Your task to perform on an android device: Show me productivity apps on the Play Store Image 0: 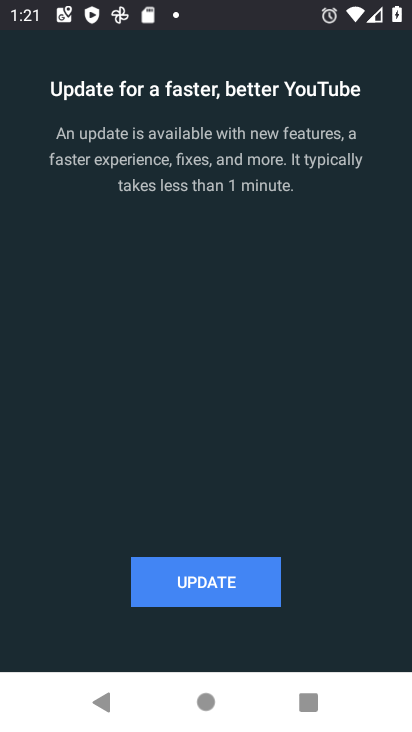
Step 0: press back button
Your task to perform on an android device: Show me productivity apps on the Play Store Image 1: 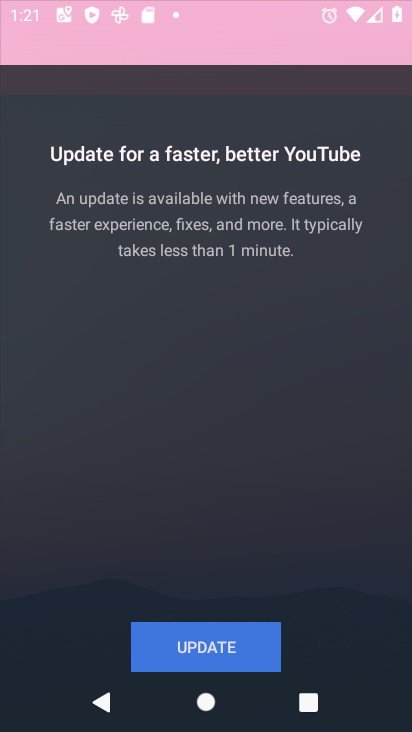
Step 1: press back button
Your task to perform on an android device: Show me productivity apps on the Play Store Image 2: 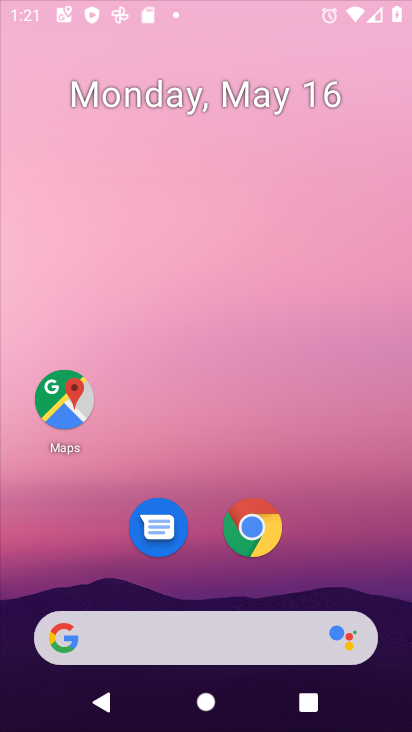
Step 2: press back button
Your task to perform on an android device: Show me productivity apps on the Play Store Image 3: 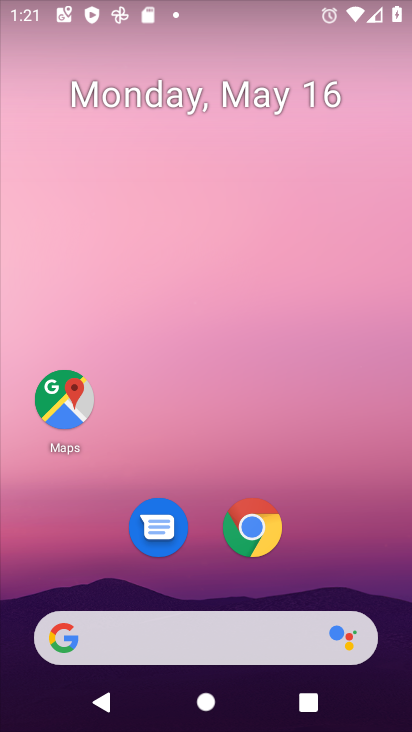
Step 3: drag from (338, 548) to (290, 23)
Your task to perform on an android device: Show me productivity apps on the Play Store Image 4: 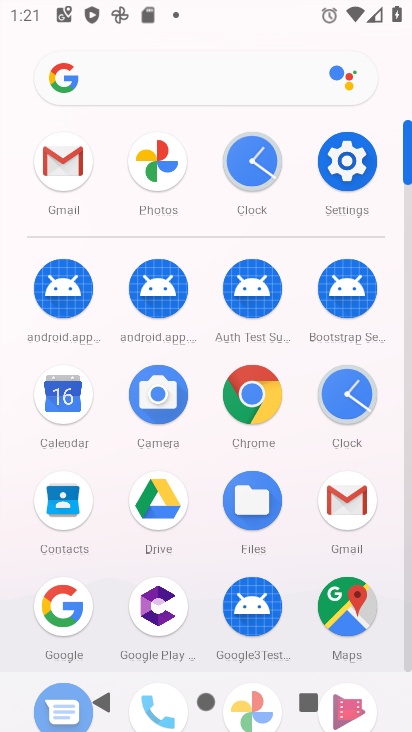
Step 4: click (405, 610)
Your task to perform on an android device: Show me productivity apps on the Play Store Image 5: 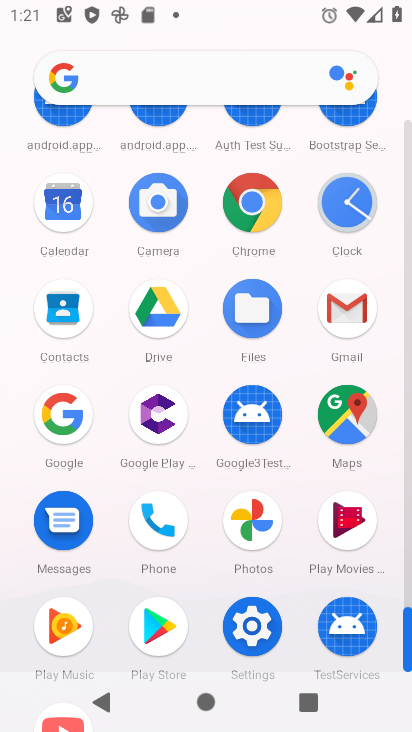
Step 5: click (253, 528)
Your task to perform on an android device: Show me productivity apps on the Play Store Image 6: 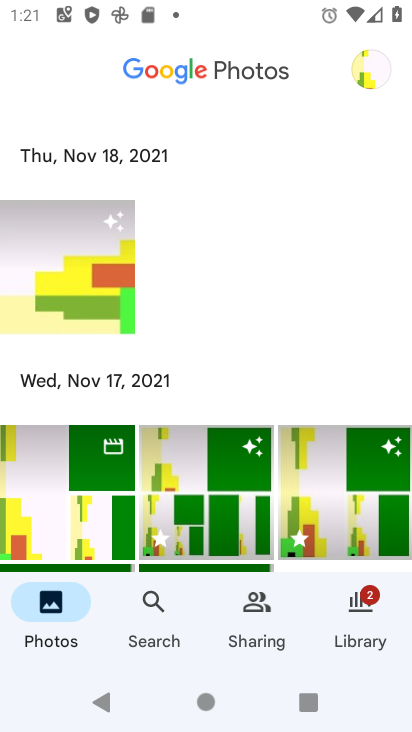
Step 6: press home button
Your task to perform on an android device: Show me productivity apps on the Play Store Image 7: 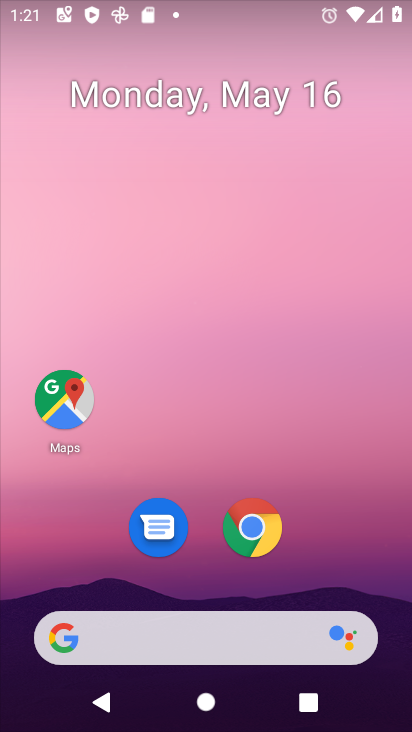
Step 7: drag from (348, 510) to (301, 69)
Your task to perform on an android device: Show me productivity apps on the Play Store Image 8: 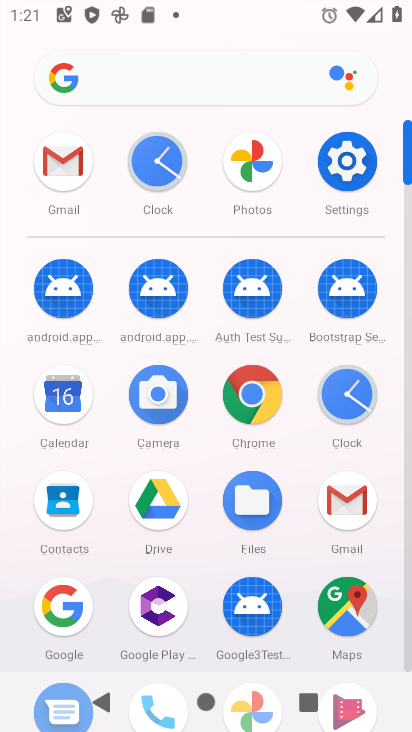
Step 8: click (404, 652)
Your task to perform on an android device: Show me productivity apps on the Play Store Image 9: 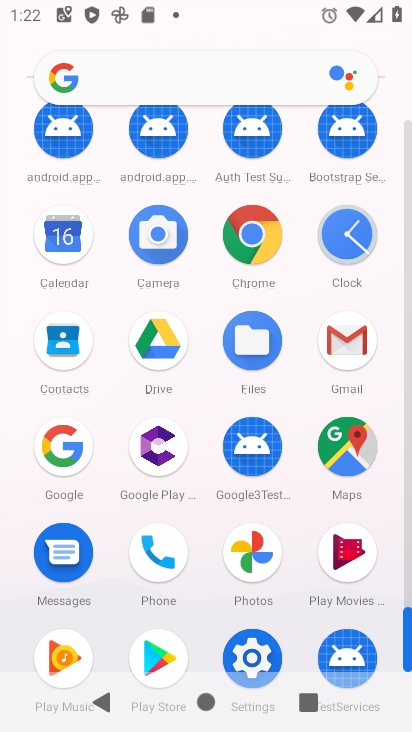
Step 9: click (163, 647)
Your task to perform on an android device: Show me productivity apps on the Play Store Image 10: 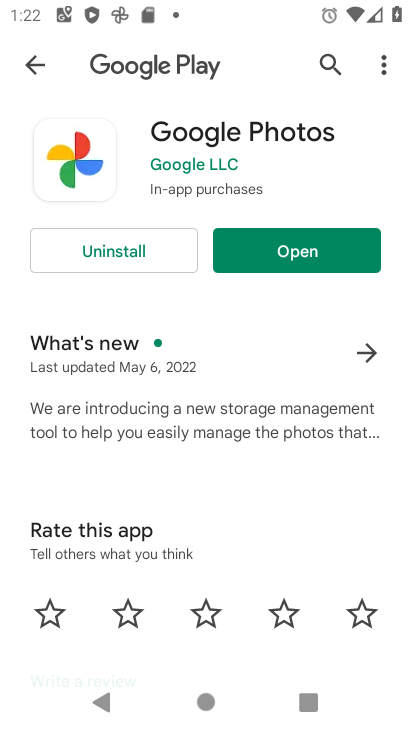
Step 10: click (36, 58)
Your task to perform on an android device: Show me productivity apps on the Play Store Image 11: 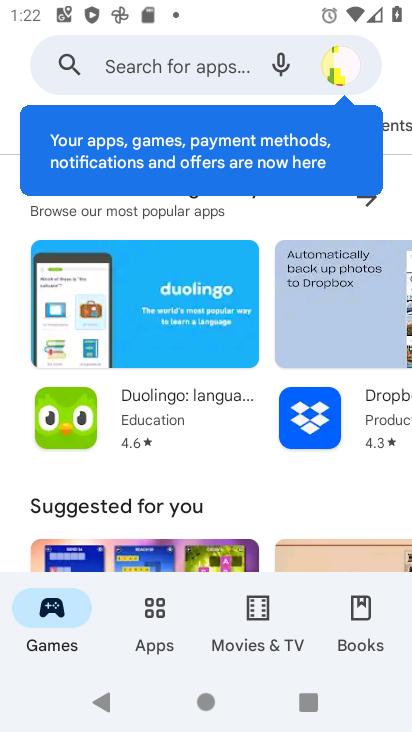
Step 11: click (294, 178)
Your task to perform on an android device: Show me productivity apps on the Play Store Image 12: 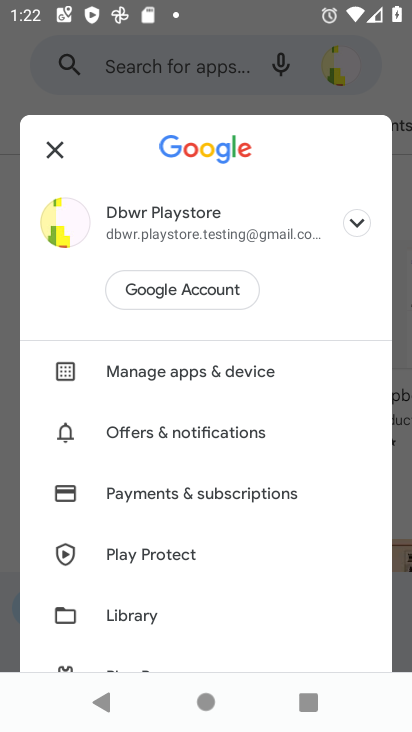
Step 12: click (38, 151)
Your task to perform on an android device: Show me productivity apps on the Play Store Image 13: 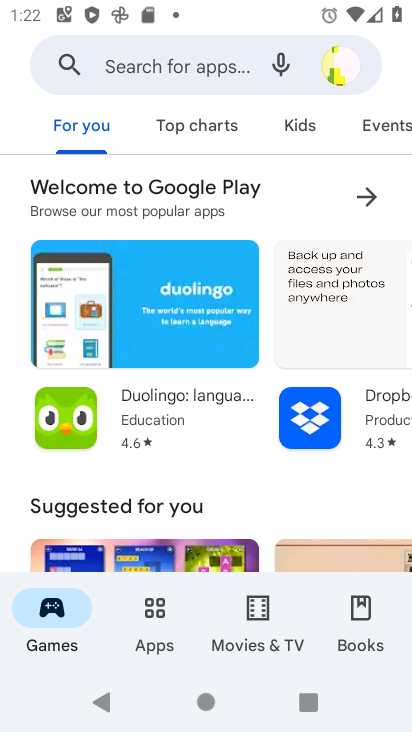
Step 13: click (197, 137)
Your task to perform on an android device: Show me productivity apps on the Play Store Image 14: 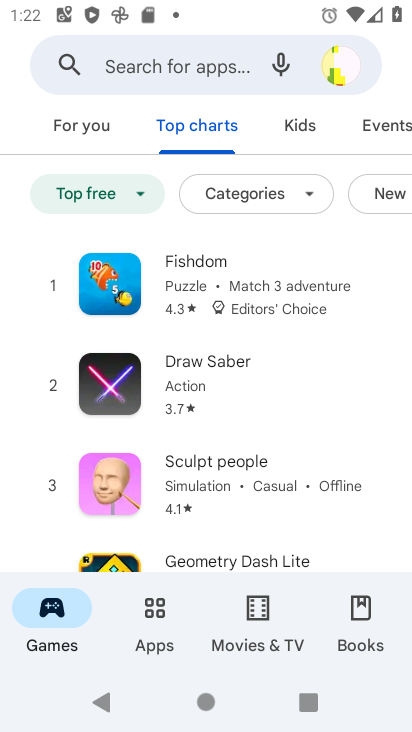
Step 14: click (239, 190)
Your task to perform on an android device: Show me productivity apps on the Play Store Image 15: 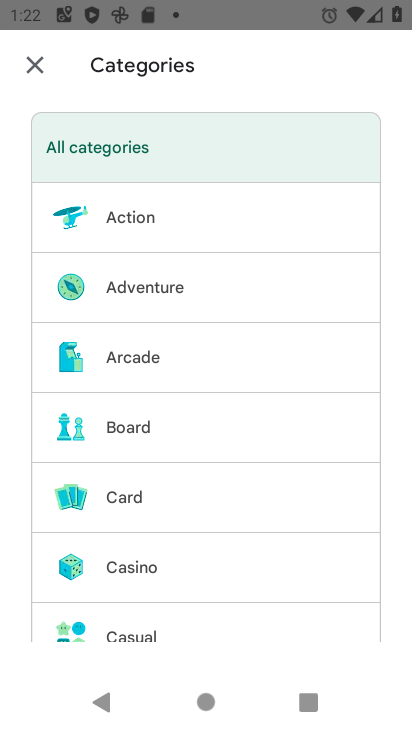
Step 15: drag from (176, 524) to (142, 356)
Your task to perform on an android device: Show me productivity apps on the Play Store Image 16: 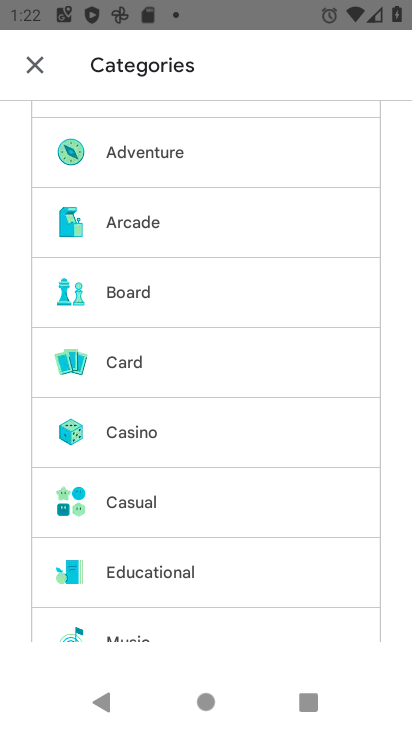
Step 16: drag from (184, 577) to (171, 357)
Your task to perform on an android device: Show me productivity apps on the Play Store Image 17: 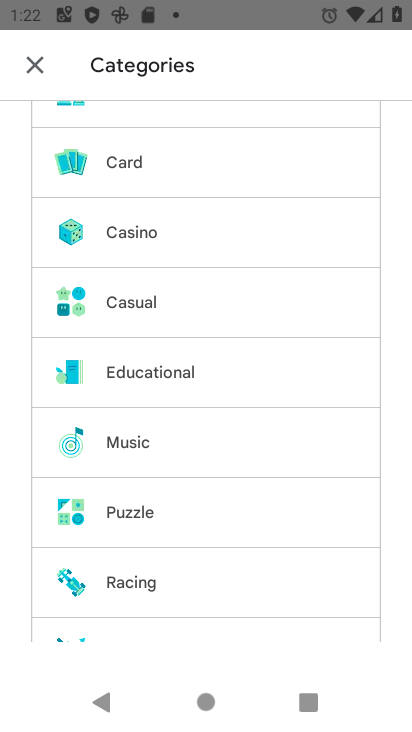
Step 17: drag from (191, 607) to (129, 418)
Your task to perform on an android device: Show me productivity apps on the Play Store Image 18: 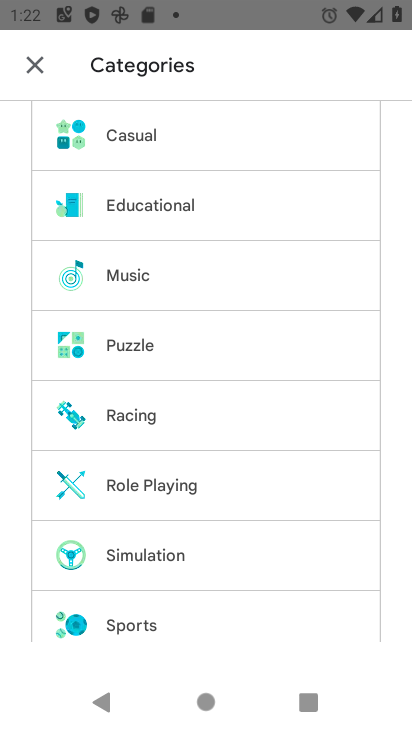
Step 18: drag from (136, 574) to (119, 388)
Your task to perform on an android device: Show me productivity apps on the Play Store Image 19: 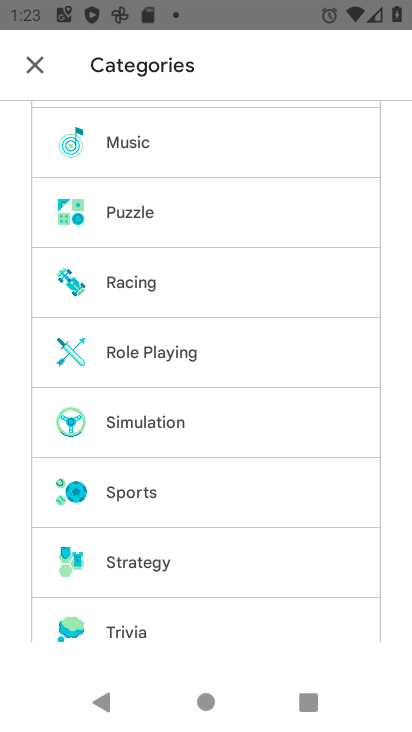
Step 19: drag from (165, 592) to (151, 441)
Your task to perform on an android device: Show me productivity apps on the Play Store Image 20: 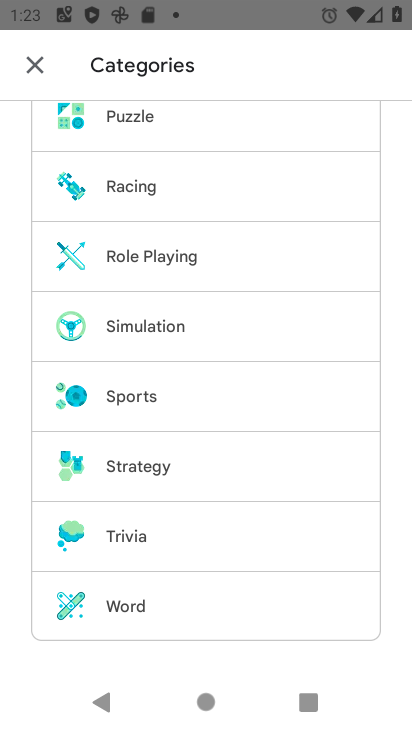
Step 20: drag from (171, 535) to (108, 325)
Your task to perform on an android device: Show me productivity apps on the Play Store Image 21: 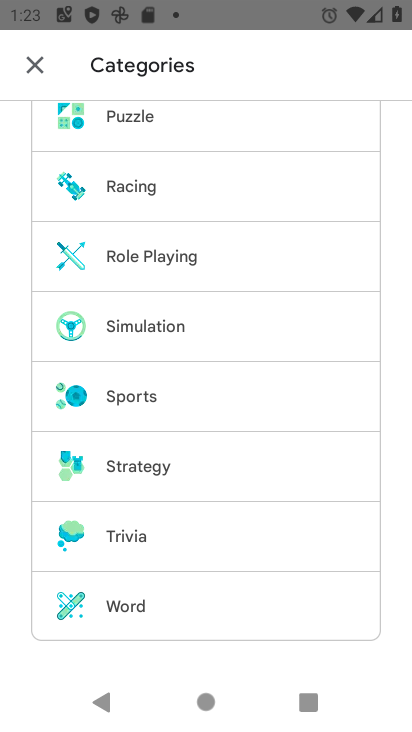
Step 21: drag from (166, 207) to (146, 70)
Your task to perform on an android device: Show me productivity apps on the Play Store Image 22: 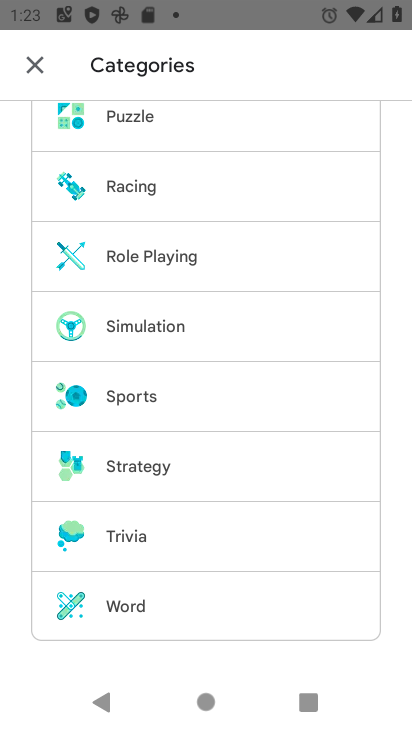
Step 22: drag from (162, 265) to (222, 587)
Your task to perform on an android device: Show me productivity apps on the Play Store Image 23: 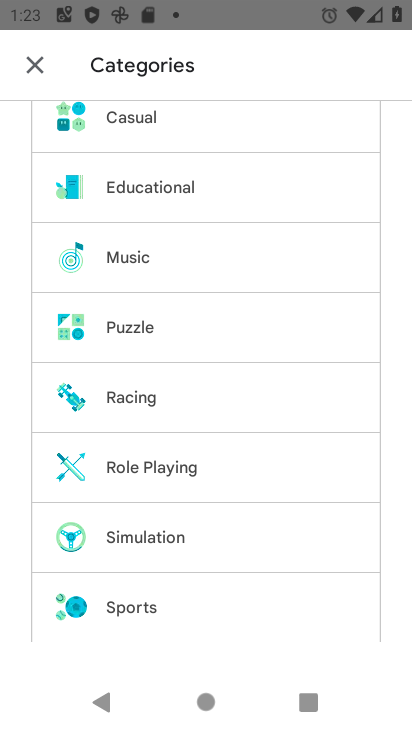
Step 23: drag from (209, 347) to (197, 6)
Your task to perform on an android device: Show me productivity apps on the Play Store Image 24: 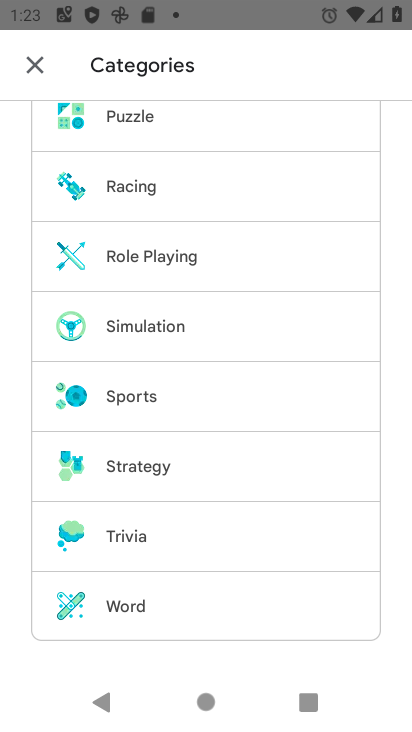
Step 24: click (33, 45)
Your task to perform on an android device: Show me productivity apps on the Play Store Image 25: 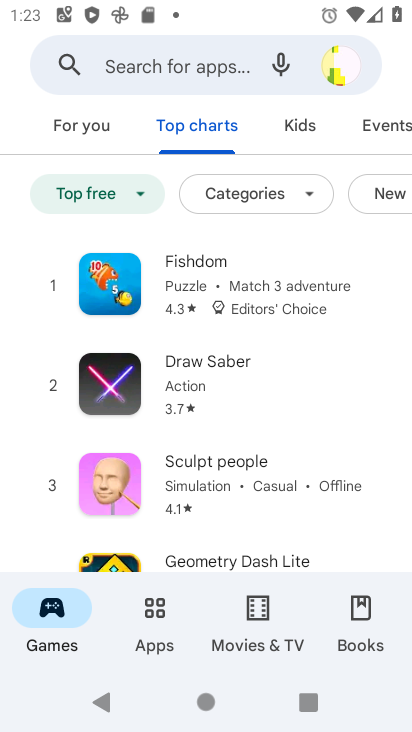
Step 25: click (153, 614)
Your task to perform on an android device: Show me productivity apps on the Play Store Image 26: 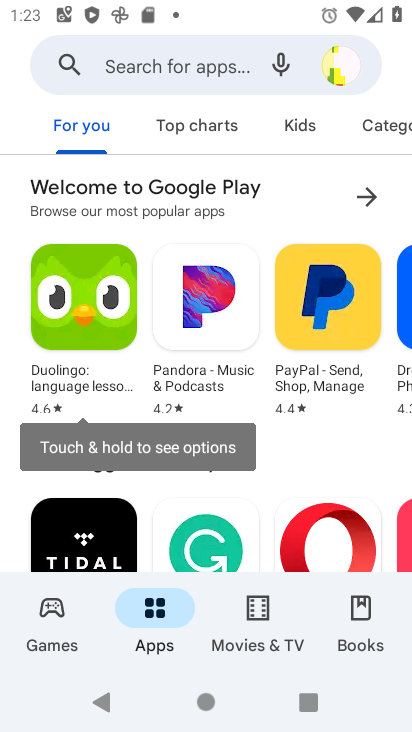
Step 26: click (156, 136)
Your task to perform on an android device: Show me productivity apps on the Play Store Image 27: 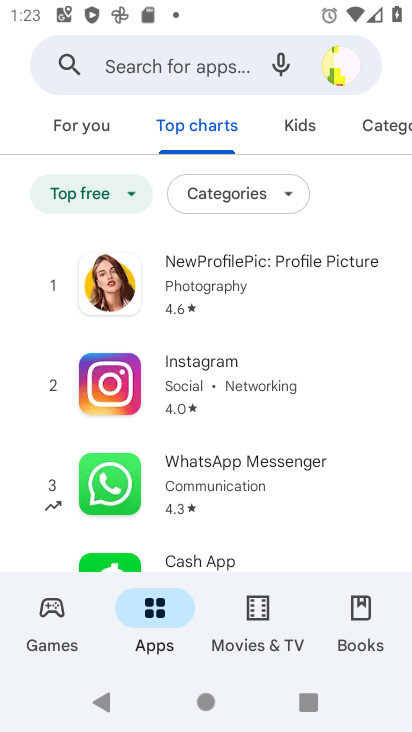
Step 27: click (233, 195)
Your task to perform on an android device: Show me productivity apps on the Play Store Image 28: 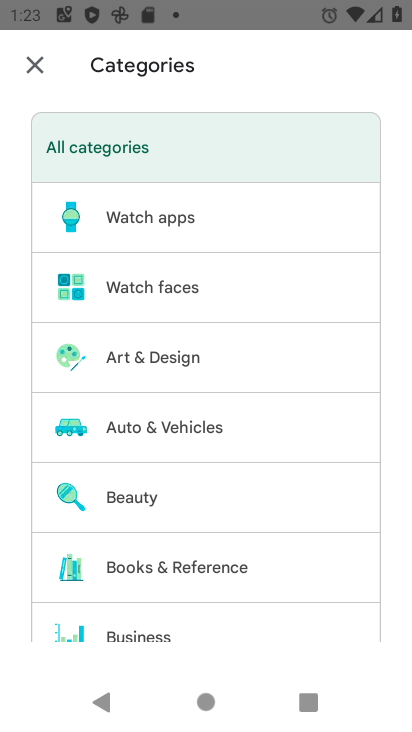
Step 28: drag from (229, 496) to (187, 156)
Your task to perform on an android device: Show me productivity apps on the Play Store Image 29: 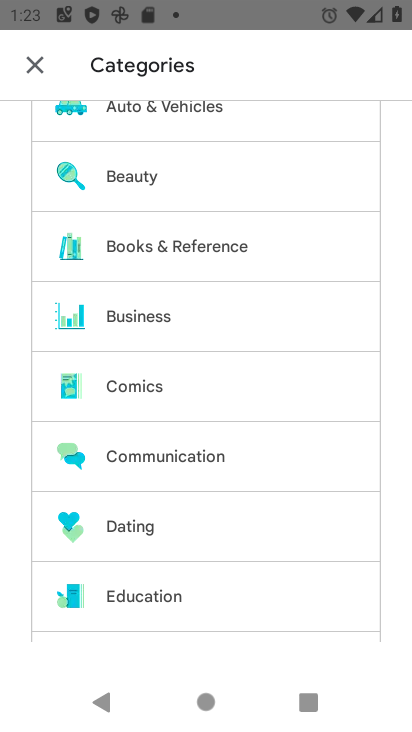
Step 29: drag from (219, 525) to (200, 360)
Your task to perform on an android device: Show me productivity apps on the Play Store Image 30: 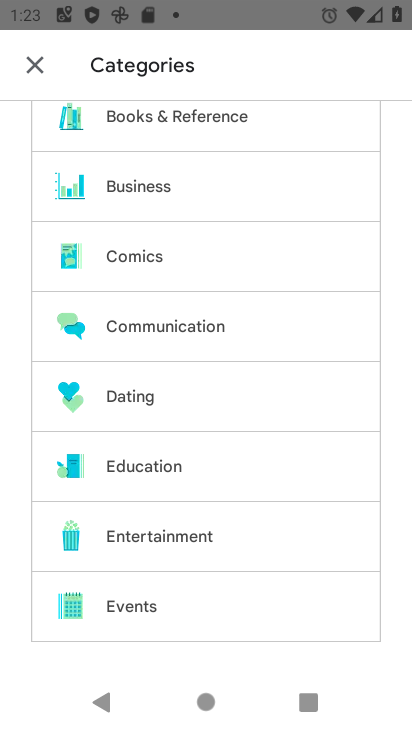
Step 30: drag from (261, 621) to (152, 319)
Your task to perform on an android device: Show me productivity apps on the Play Store Image 31: 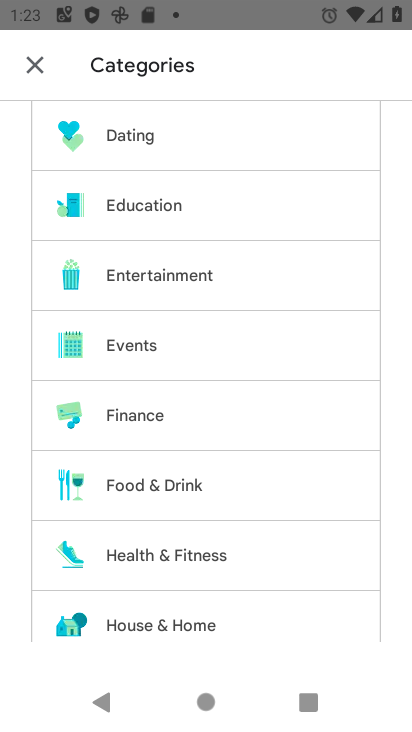
Step 31: drag from (136, 512) to (131, 293)
Your task to perform on an android device: Show me productivity apps on the Play Store Image 32: 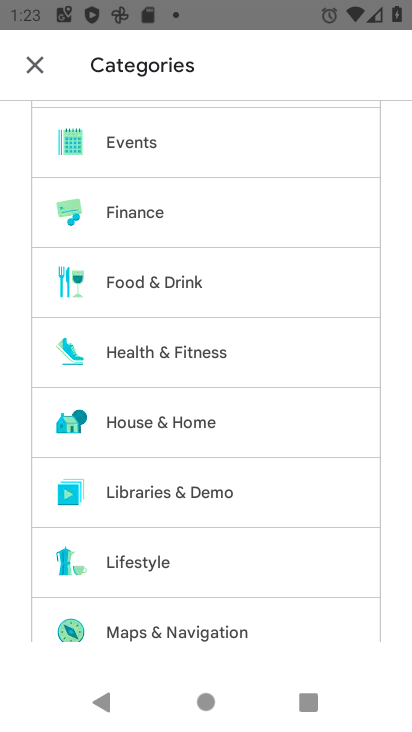
Step 32: drag from (155, 588) to (139, 306)
Your task to perform on an android device: Show me productivity apps on the Play Store Image 33: 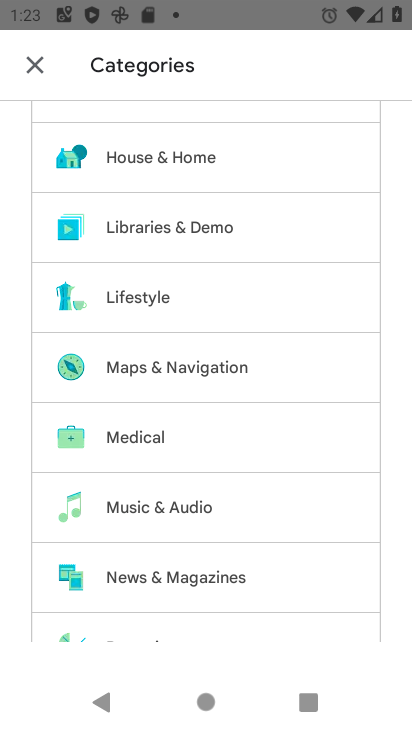
Step 33: drag from (199, 586) to (141, 351)
Your task to perform on an android device: Show me productivity apps on the Play Store Image 34: 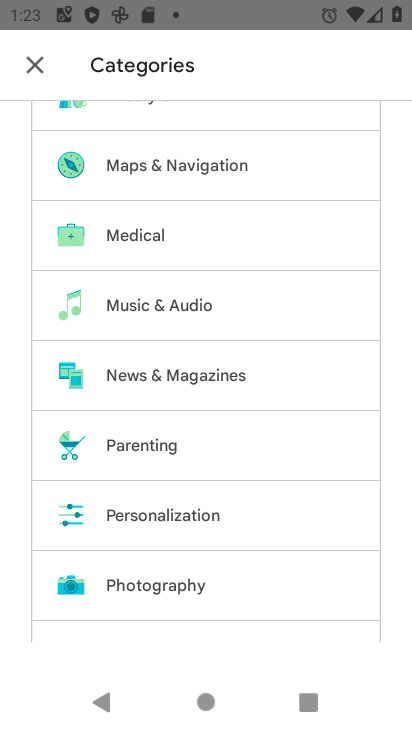
Step 34: drag from (183, 541) to (133, 311)
Your task to perform on an android device: Show me productivity apps on the Play Store Image 35: 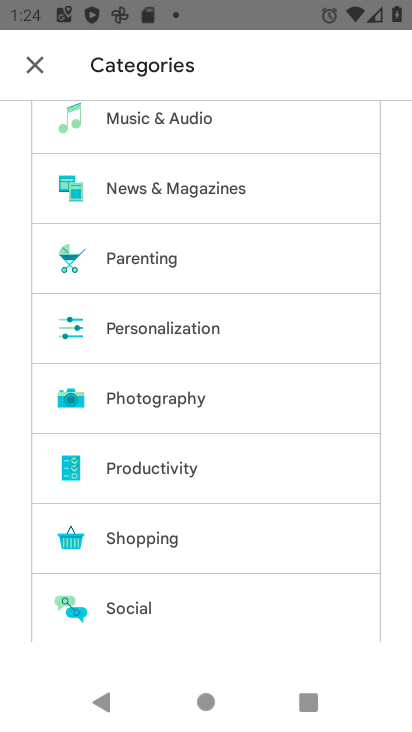
Step 35: click (159, 483)
Your task to perform on an android device: Show me productivity apps on the Play Store Image 36: 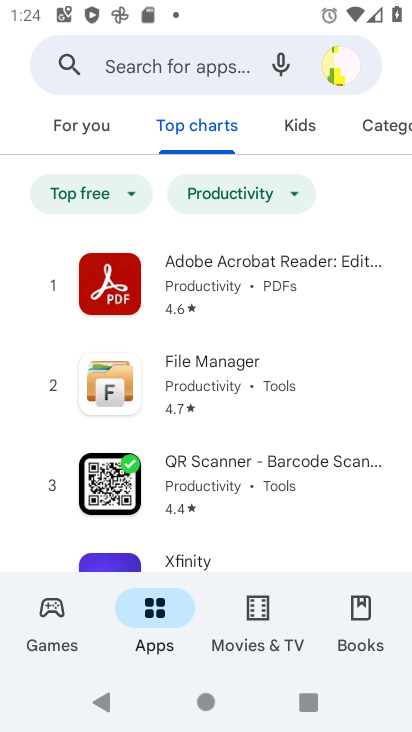
Step 36: task complete